Your task to perform on an android device: open a bookmark in the chrome app Image 0: 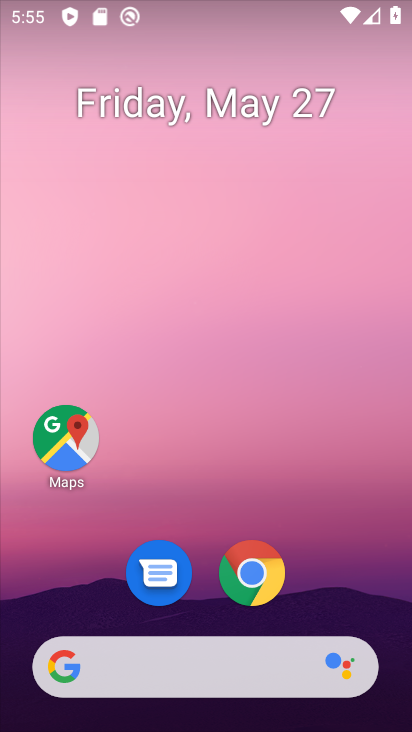
Step 0: press home button
Your task to perform on an android device: open a bookmark in the chrome app Image 1: 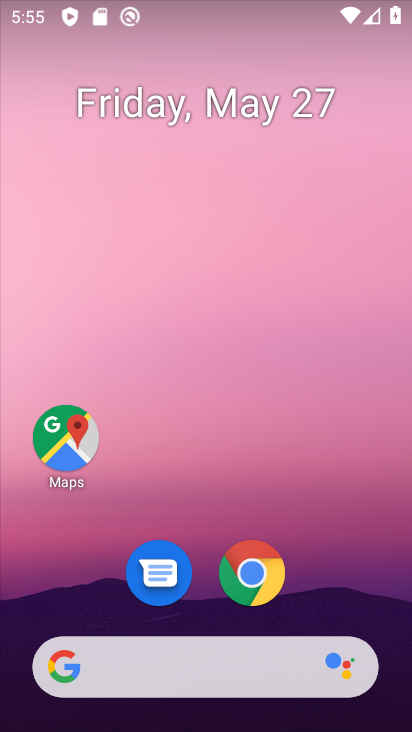
Step 1: drag from (200, 500) to (210, 69)
Your task to perform on an android device: open a bookmark in the chrome app Image 2: 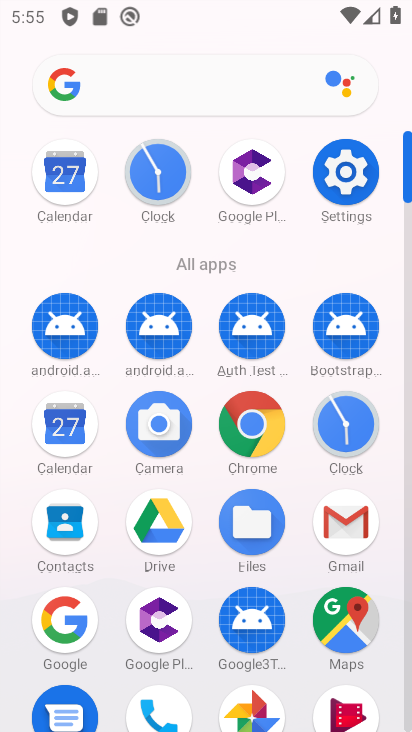
Step 2: click (248, 412)
Your task to perform on an android device: open a bookmark in the chrome app Image 3: 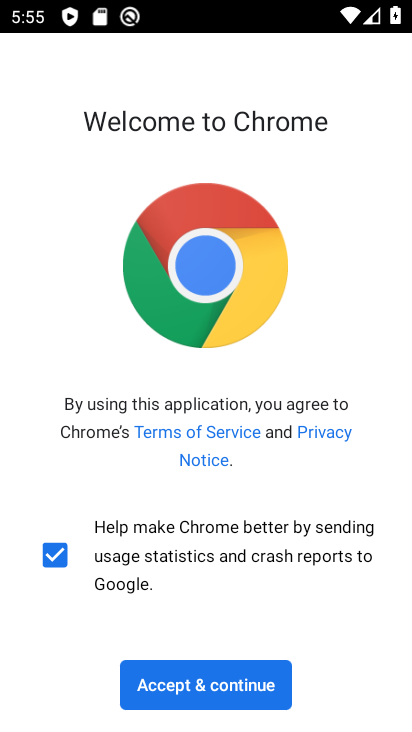
Step 3: click (203, 679)
Your task to perform on an android device: open a bookmark in the chrome app Image 4: 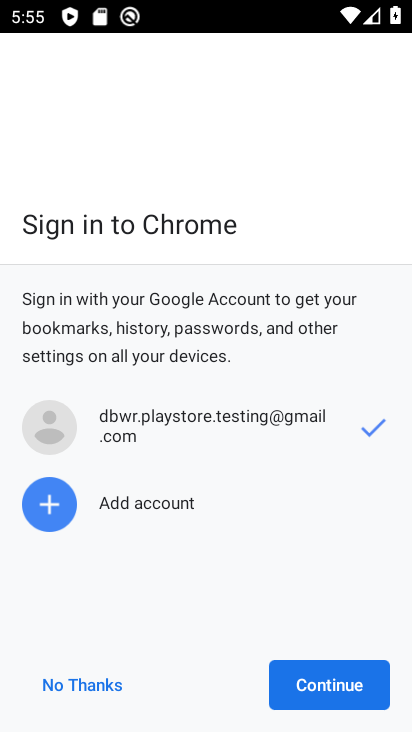
Step 4: click (314, 685)
Your task to perform on an android device: open a bookmark in the chrome app Image 5: 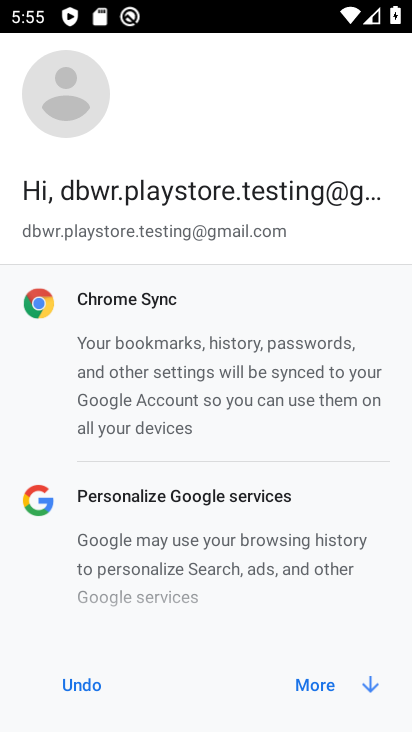
Step 5: click (314, 685)
Your task to perform on an android device: open a bookmark in the chrome app Image 6: 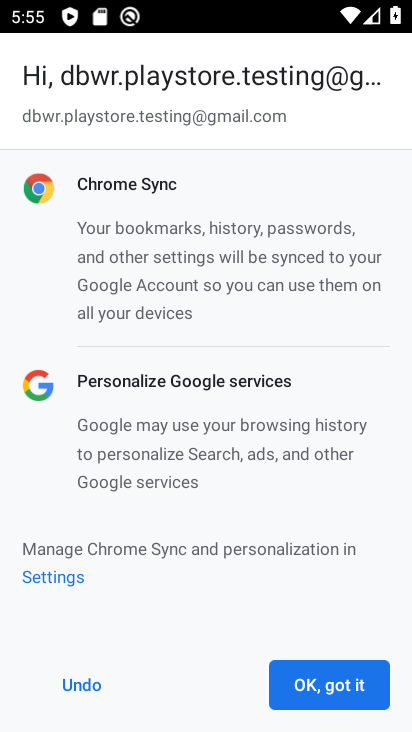
Step 6: click (314, 685)
Your task to perform on an android device: open a bookmark in the chrome app Image 7: 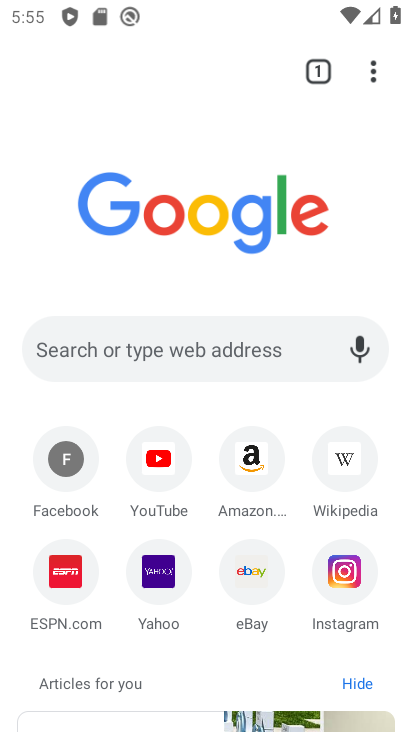
Step 7: click (378, 65)
Your task to perform on an android device: open a bookmark in the chrome app Image 8: 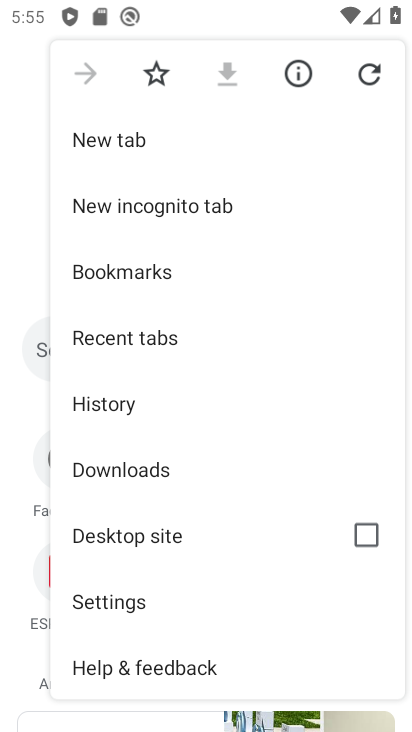
Step 8: click (192, 267)
Your task to perform on an android device: open a bookmark in the chrome app Image 9: 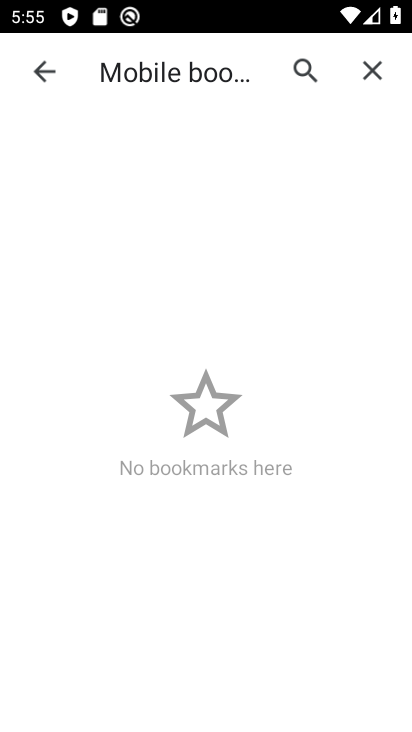
Step 9: task complete